Your task to perform on an android device: install app "Viber Messenger" Image 0: 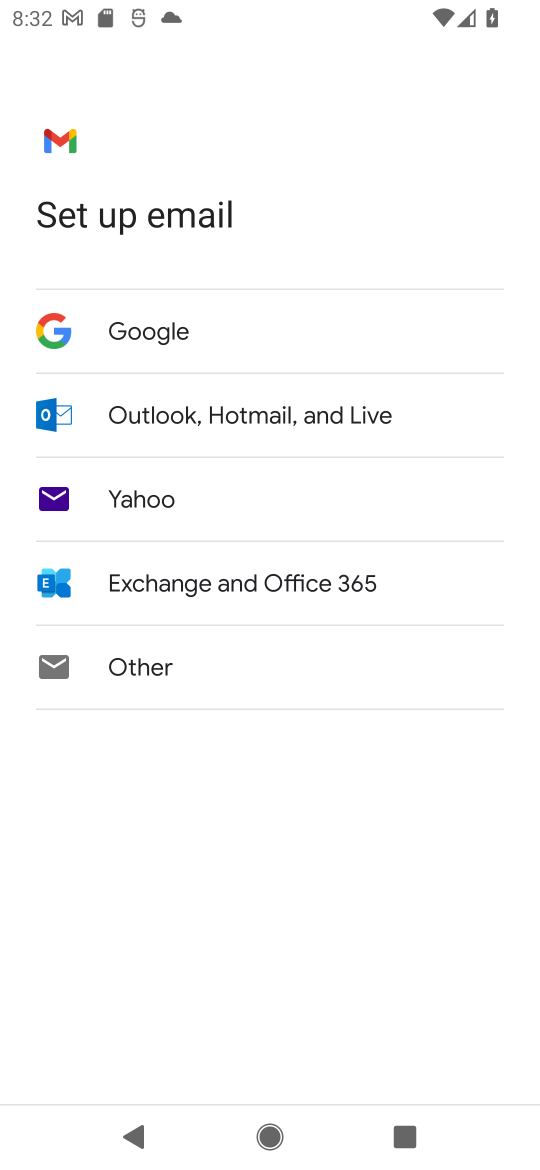
Step 0: press home button
Your task to perform on an android device: install app "Viber Messenger" Image 1: 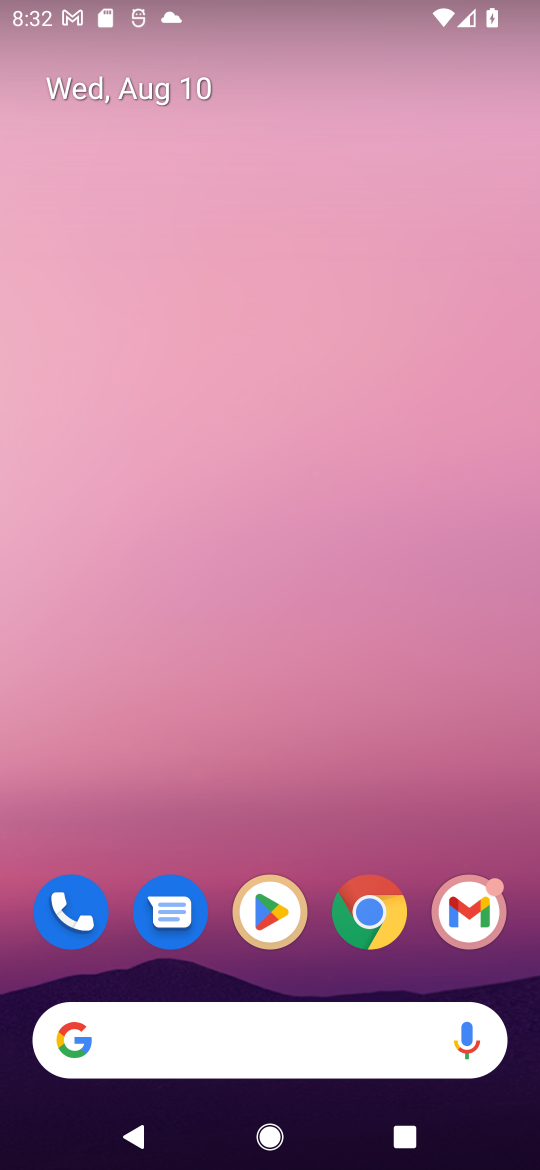
Step 1: drag from (529, 995) to (326, 25)
Your task to perform on an android device: install app "Viber Messenger" Image 2: 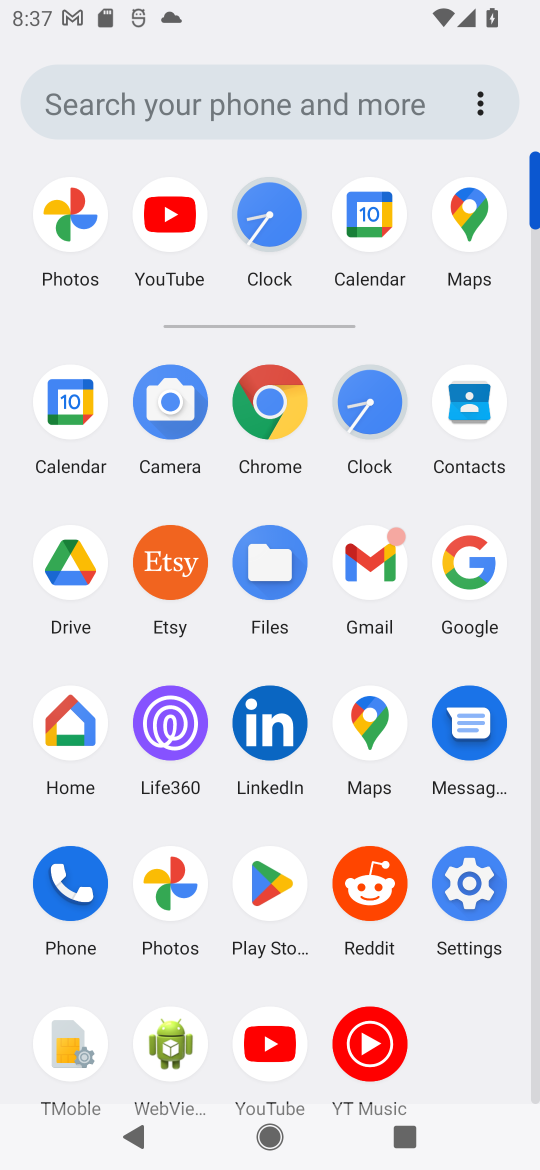
Step 2: click (259, 868)
Your task to perform on an android device: install app "Viber Messenger" Image 3: 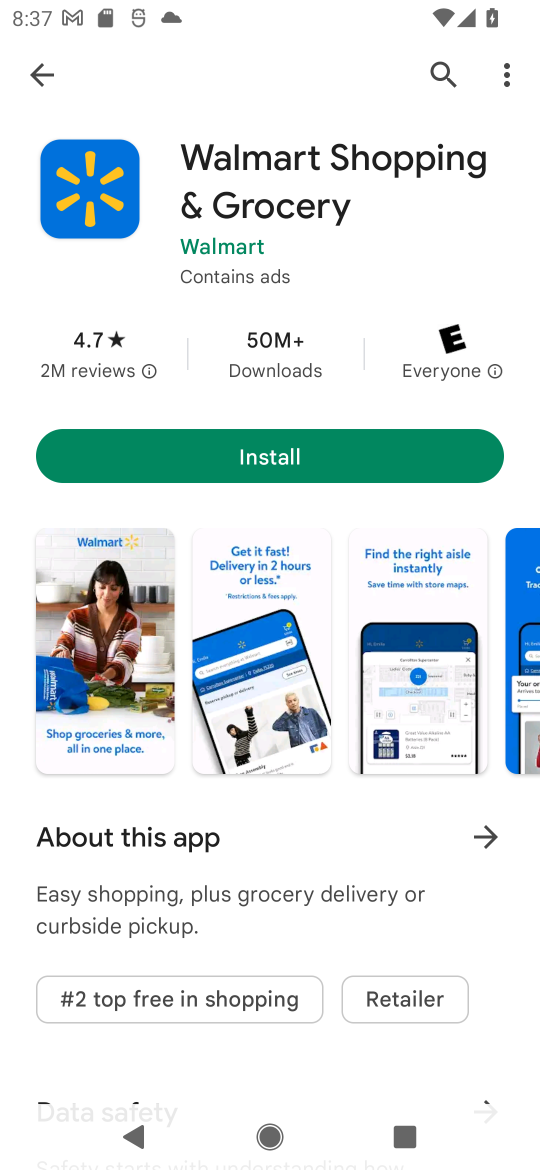
Step 3: press back button
Your task to perform on an android device: install app "Viber Messenger" Image 4: 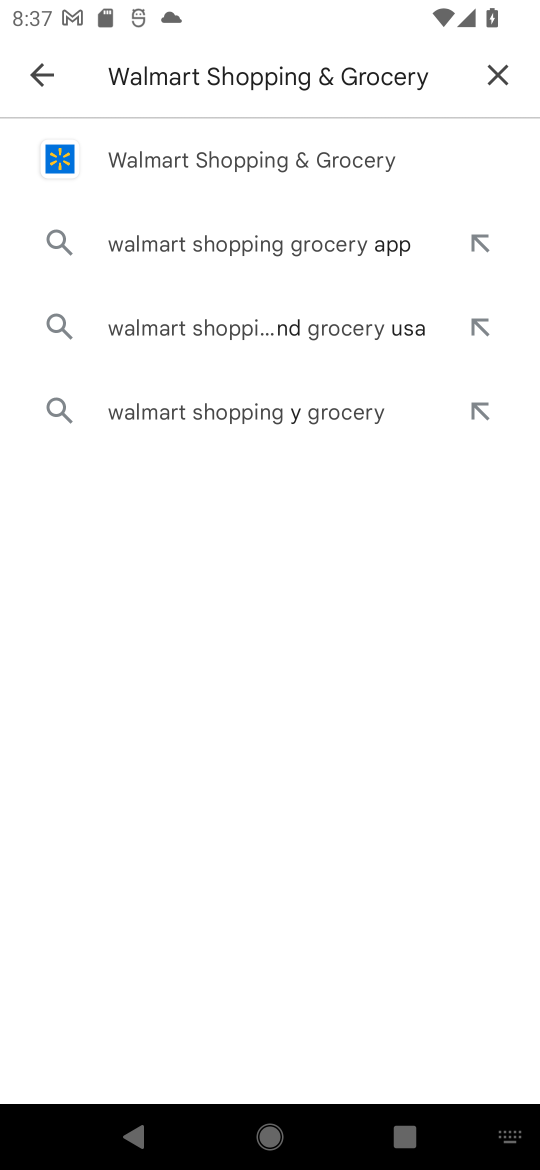
Step 4: press back button
Your task to perform on an android device: install app "Viber Messenger" Image 5: 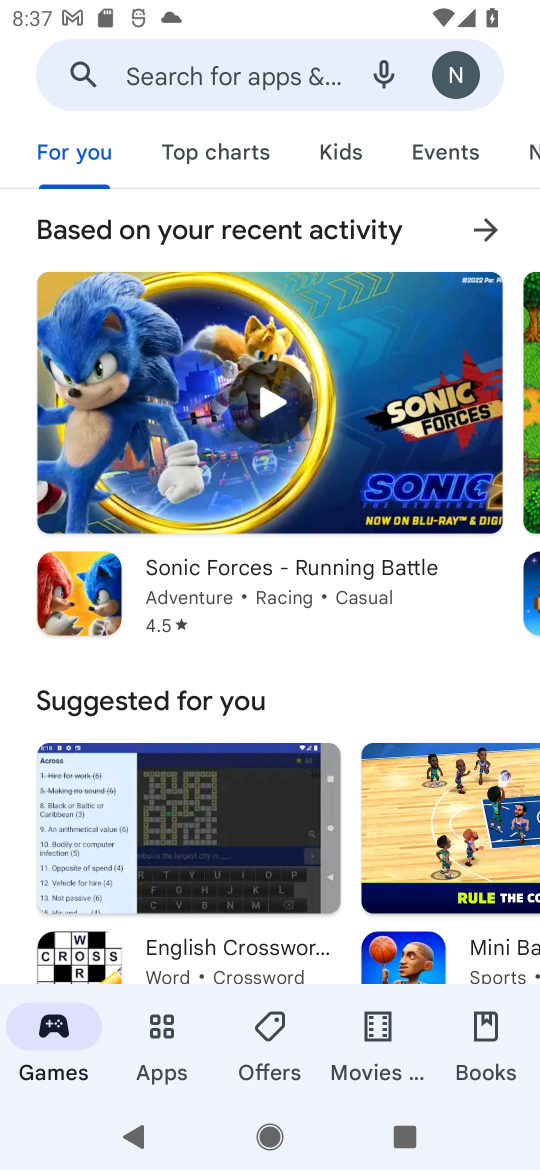
Step 5: click (226, 83)
Your task to perform on an android device: install app "Viber Messenger" Image 6: 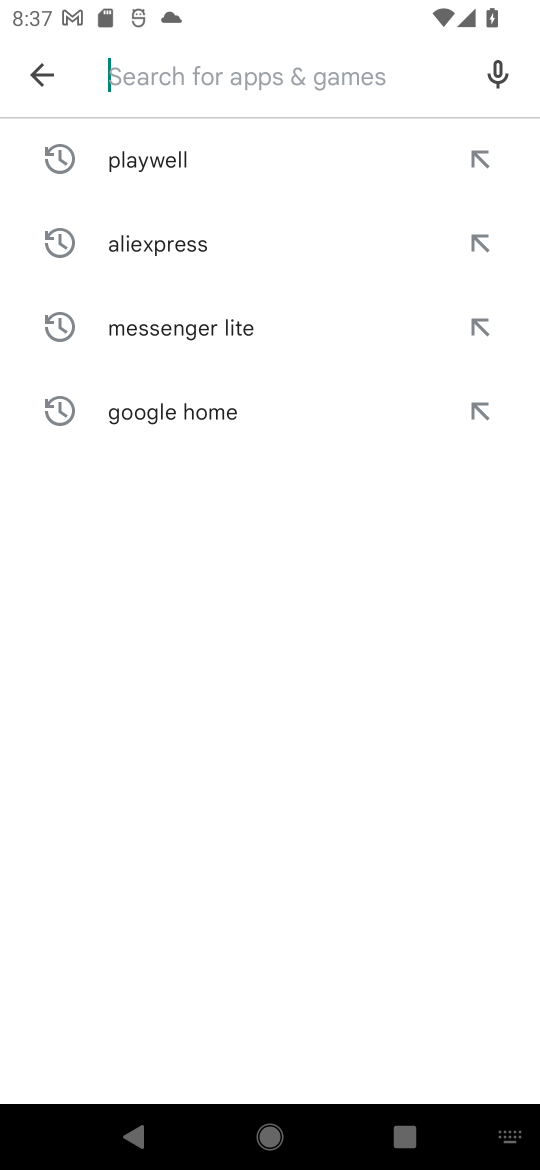
Step 6: type "Viber Messenger"
Your task to perform on an android device: install app "Viber Messenger" Image 7: 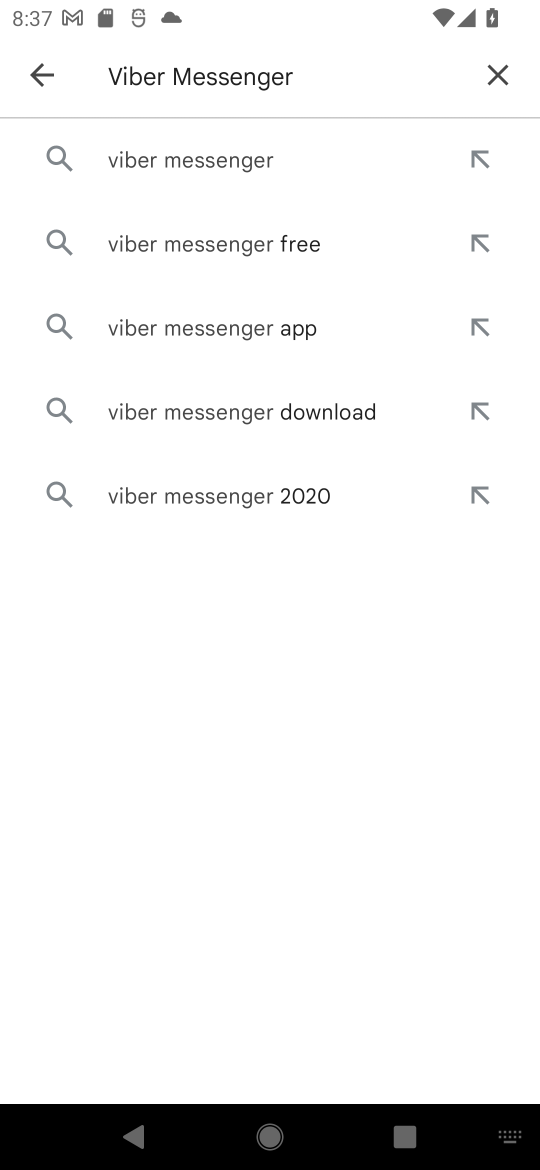
Step 7: click (189, 165)
Your task to perform on an android device: install app "Viber Messenger" Image 8: 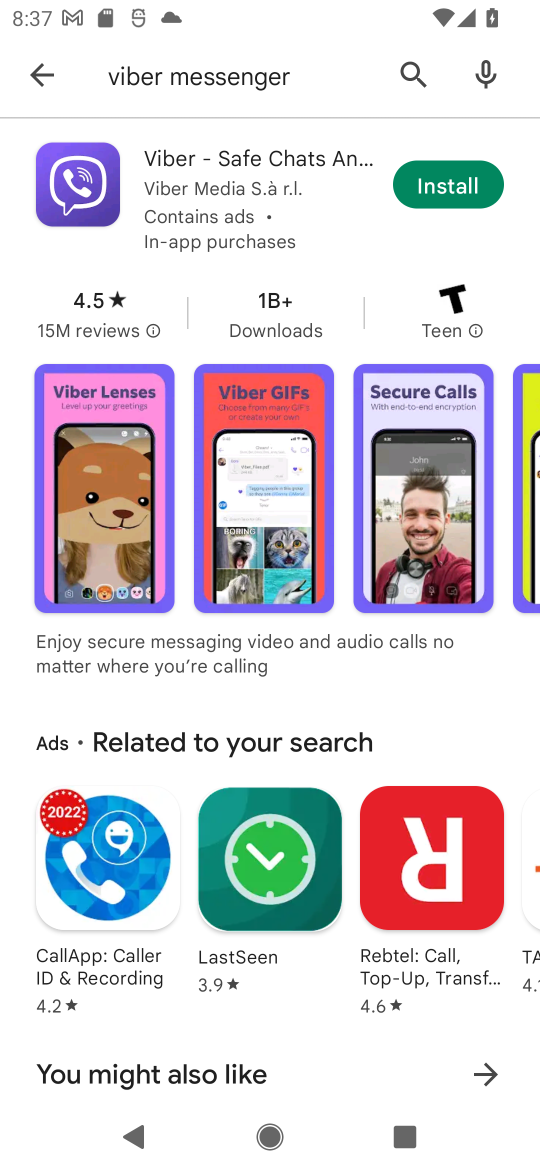
Step 8: click (436, 197)
Your task to perform on an android device: install app "Viber Messenger" Image 9: 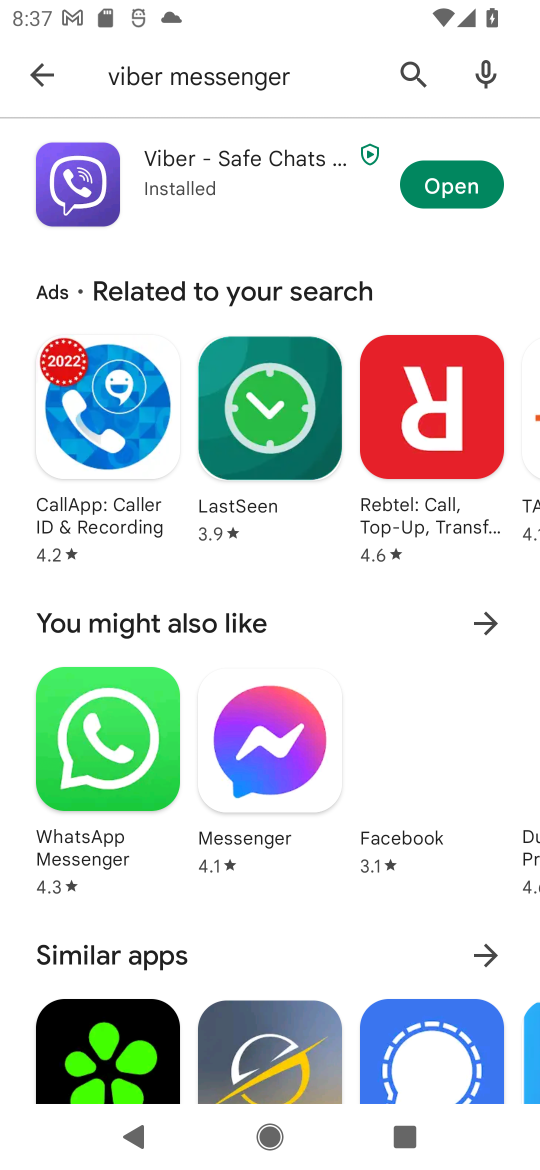
Step 9: task complete